Your task to perform on an android device: Show me the alarms in the clock app Image 0: 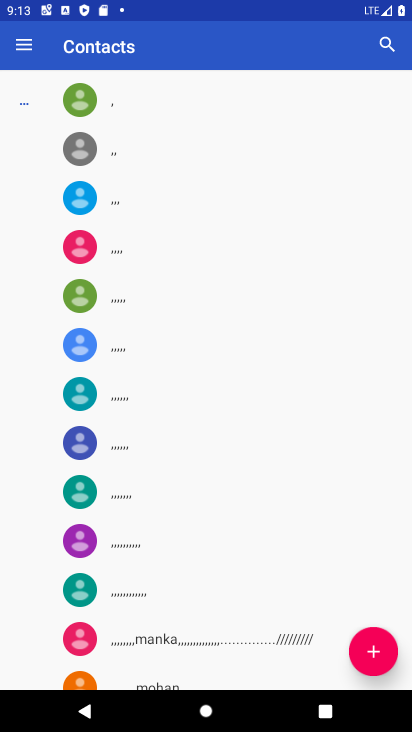
Step 0: press home button
Your task to perform on an android device: Show me the alarms in the clock app Image 1: 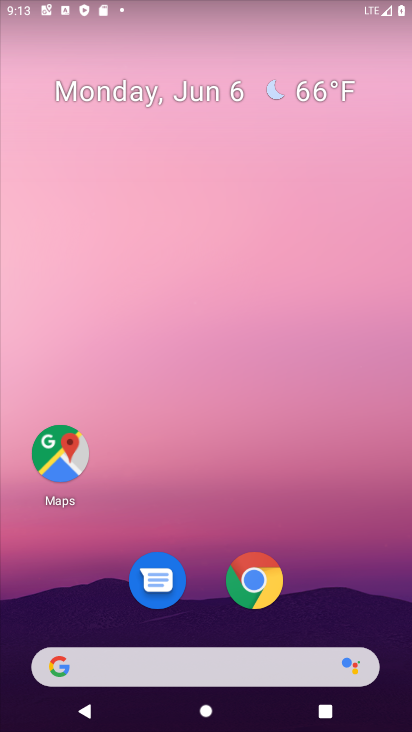
Step 1: drag from (375, 592) to (402, 470)
Your task to perform on an android device: Show me the alarms in the clock app Image 2: 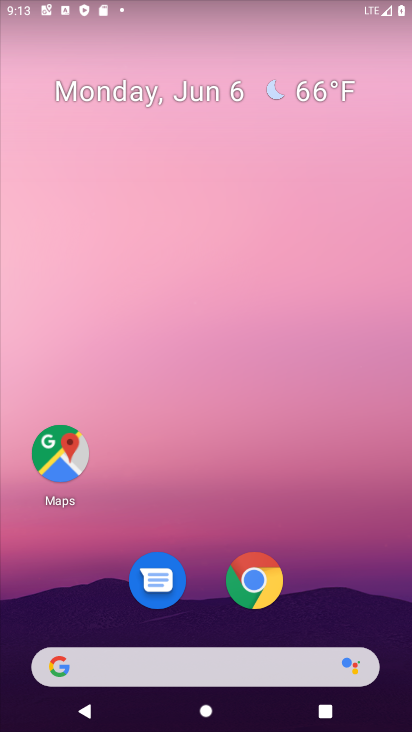
Step 2: drag from (333, 548) to (13, 331)
Your task to perform on an android device: Show me the alarms in the clock app Image 3: 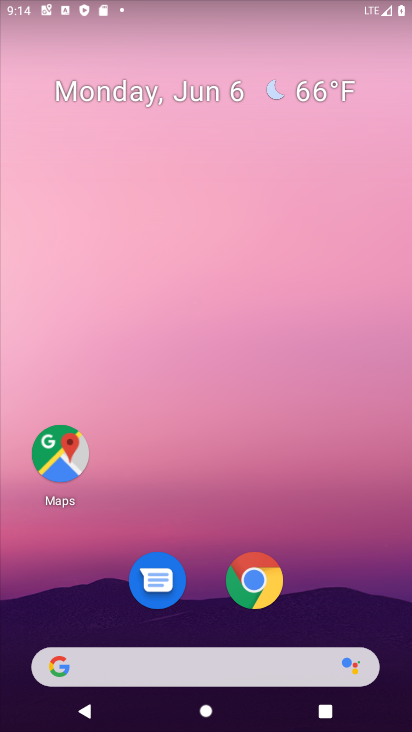
Step 3: drag from (348, 572) to (297, 20)
Your task to perform on an android device: Show me the alarms in the clock app Image 4: 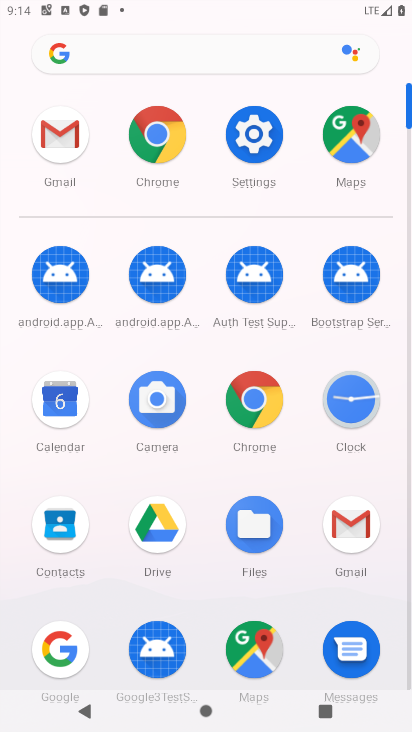
Step 4: click (346, 387)
Your task to perform on an android device: Show me the alarms in the clock app Image 5: 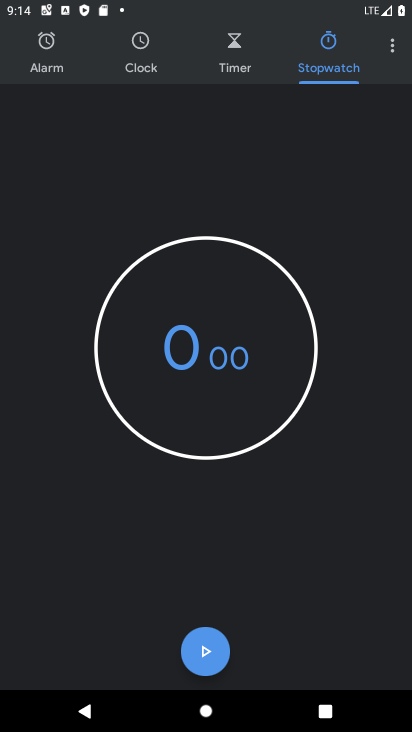
Step 5: click (44, 67)
Your task to perform on an android device: Show me the alarms in the clock app Image 6: 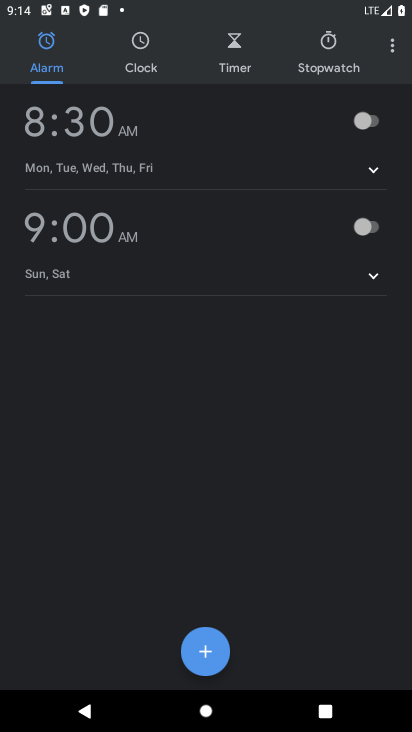
Step 6: task complete